Your task to perform on an android device: turn off data saver in the chrome app Image 0: 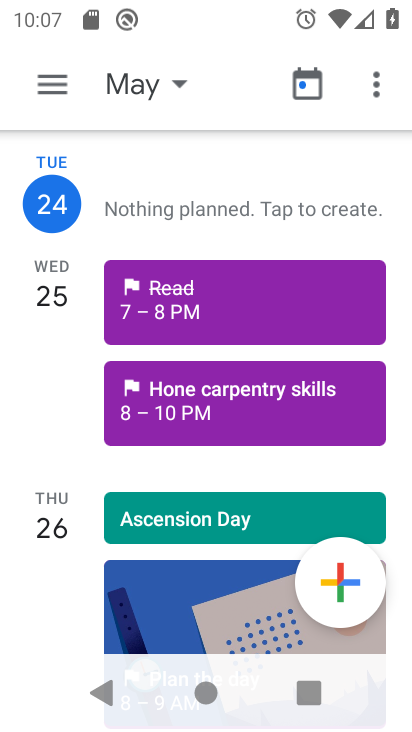
Step 0: press back button
Your task to perform on an android device: turn off data saver in the chrome app Image 1: 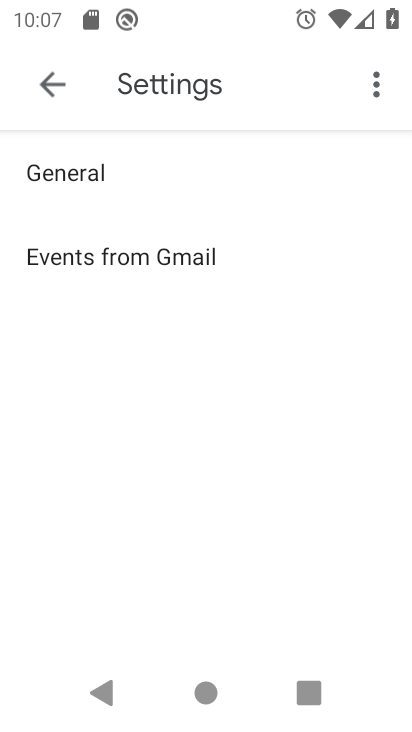
Step 1: click (49, 83)
Your task to perform on an android device: turn off data saver in the chrome app Image 2: 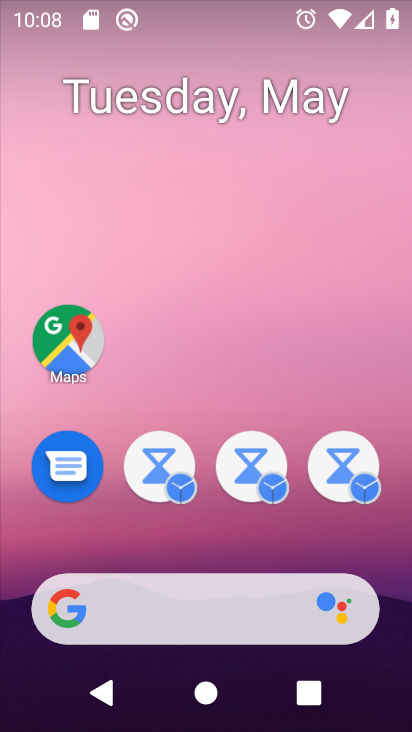
Step 2: drag from (269, 704) to (238, 284)
Your task to perform on an android device: turn off data saver in the chrome app Image 3: 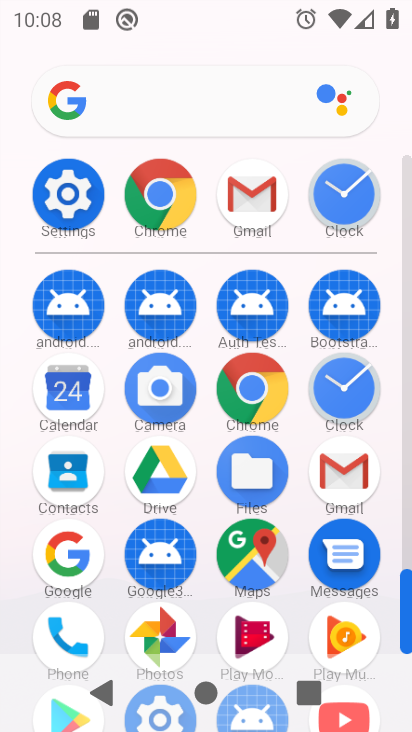
Step 3: click (159, 191)
Your task to perform on an android device: turn off data saver in the chrome app Image 4: 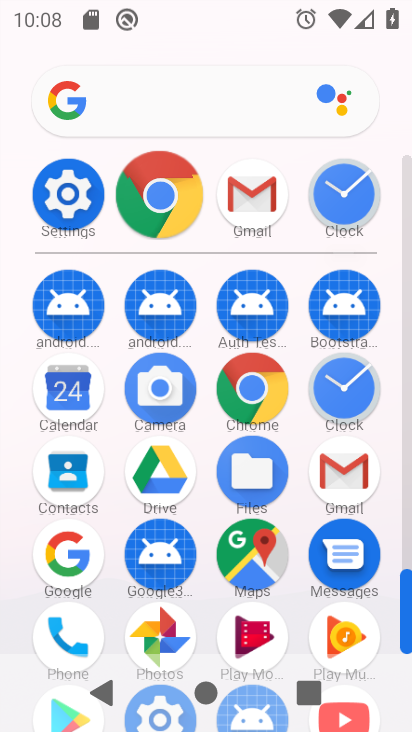
Step 4: click (162, 192)
Your task to perform on an android device: turn off data saver in the chrome app Image 5: 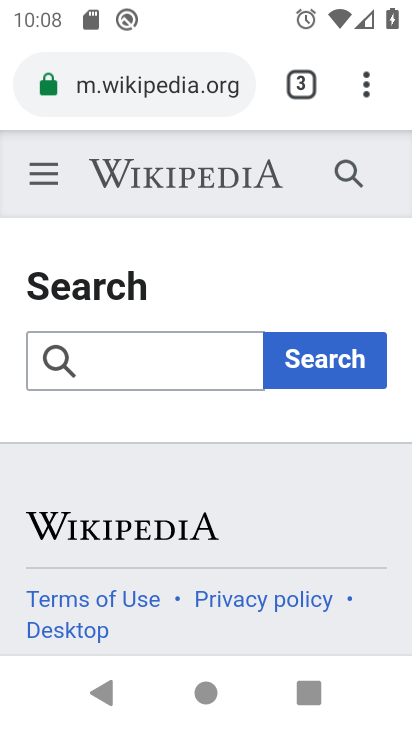
Step 5: drag from (362, 82) to (88, 512)
Your task to perform on an android device: turn off data saver in the chrome app Image 6: 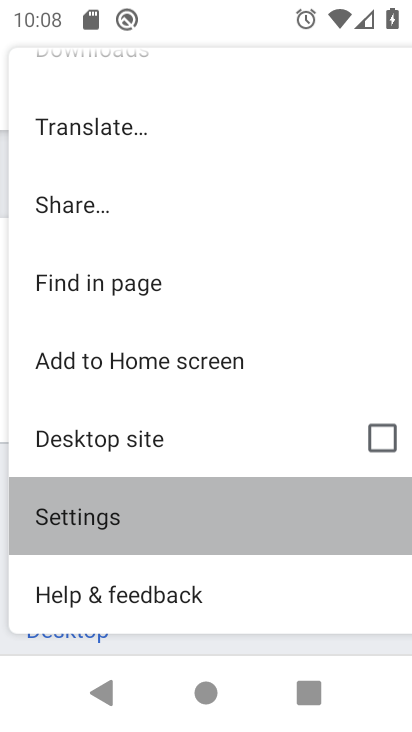
Step 6: click (90, 513)
Your task to perform on an android device: turn off data saver in the chrome app Image 7: 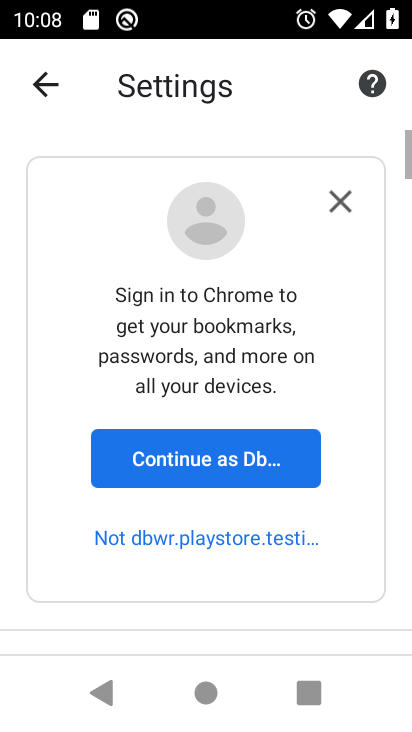
Step 7: drag from (207, 471) to (194, 70)
Your task to perform on an android device: turn off data saver in the chrome app Image 8: 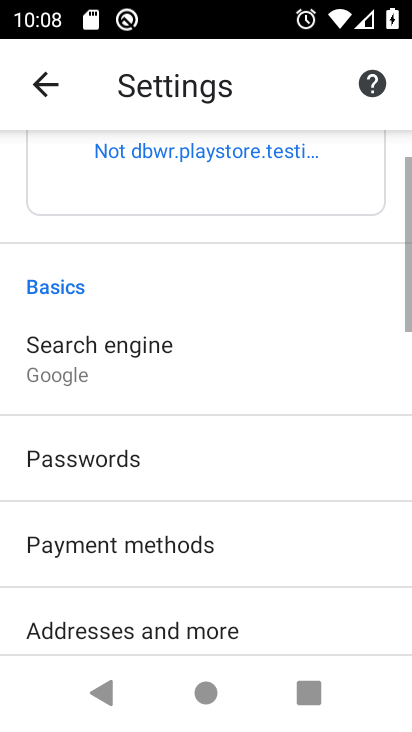
Step 8: drag from (231, 442) to (249, 81)
Your task to perform on an android device: turn off data saver in the chrome app Image 9: 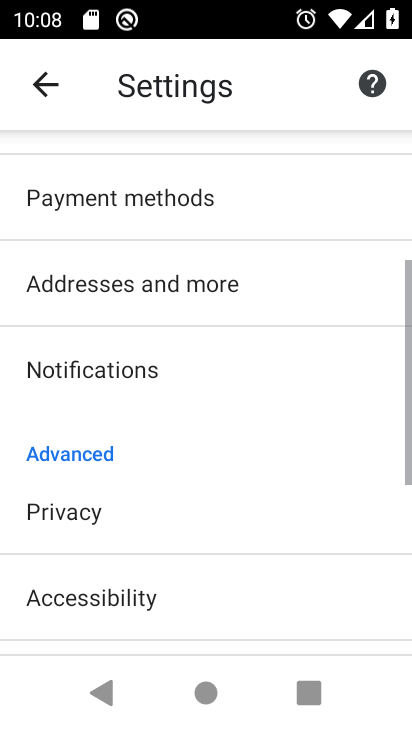
Step 9: drag from (230, 568) to (224, 190)
Your task to perform on an android device: turn off data saver in the chrome app Image 10: 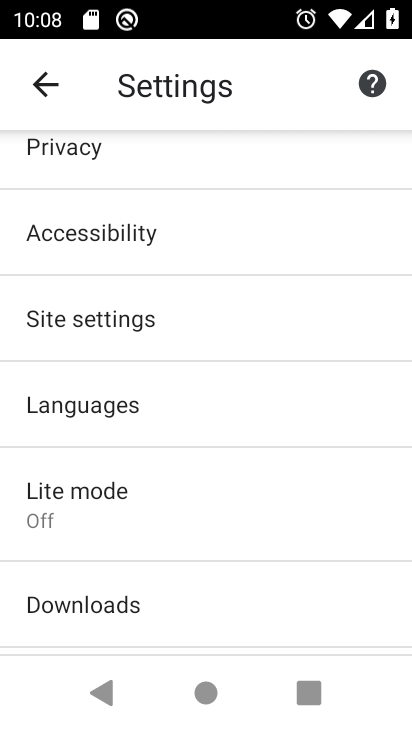
Step 10: click (66, 484)
Your task to perform on an android device: turn off data saver in the chrome app Image 11: 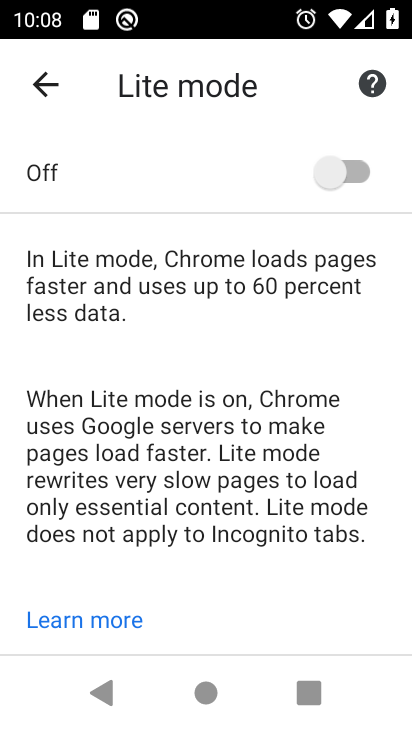
Step 11: drag from (208, 415) to (242, 30)
Your task to perform on an android device: turn off data saver in the chrome app Image 12: 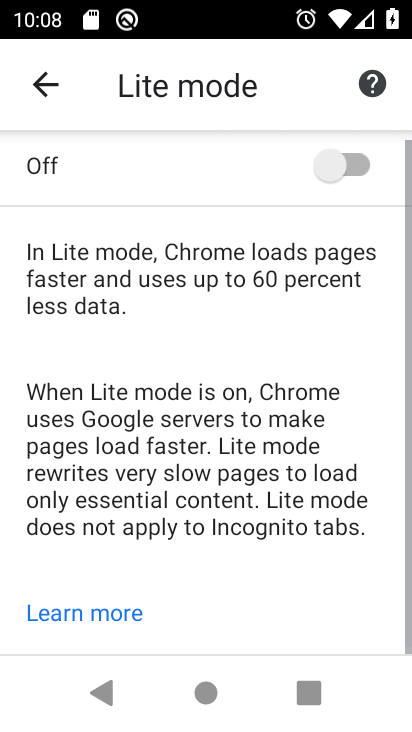
Step 12: drag from (262, 345) to (267, 96)
Your task to perform on an android device: turn off data saver in the chrome app Image 13: 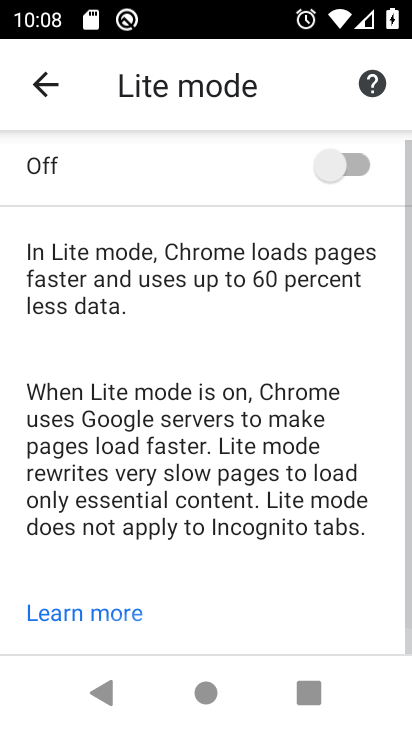
Step 13: drag from (234, 422) to (231, 111)
Your task to perform on an android device: turn off data saver in the chrome app Image 14: 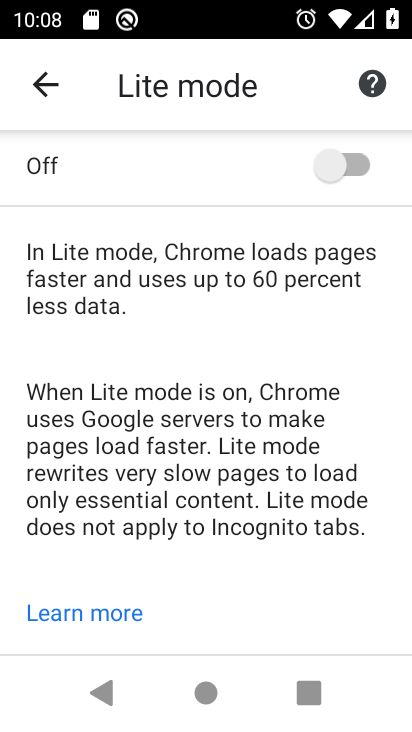
Step 14: drag from (210, 395) to (184, 129)
Your task to perform on an android device: turn off data saver in the chrome app Image 15: 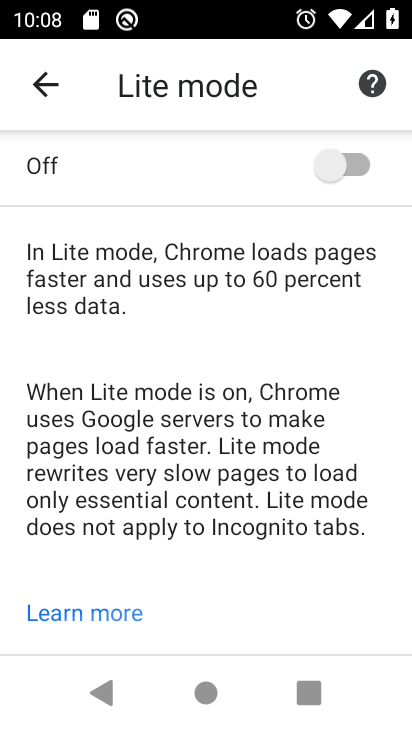
Step 15: drag from (222, 377) to (248, 106)
Your task to perform on an android device: turn off data saver in the chrome app Image 16: 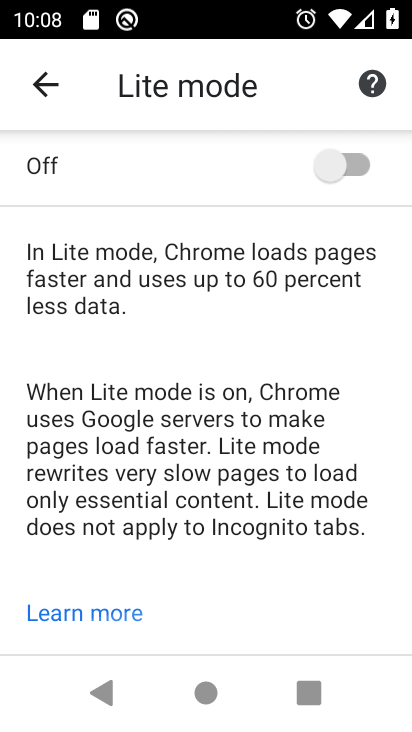
Step 16: drag from (234, 390) to (272, 84)
Your task to perform on an android device: turn off data saver in the chrome app Image 17: 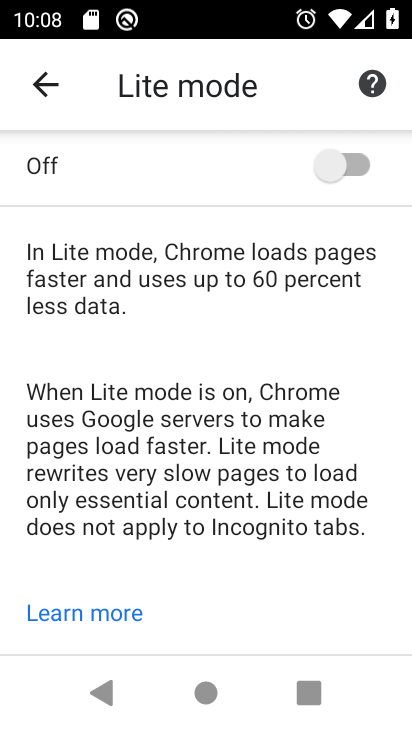
Step 17: drag from (242, 328) to (268, 67)
Your task to perform on an android device: turn off data saver in the chrome app Image 18: 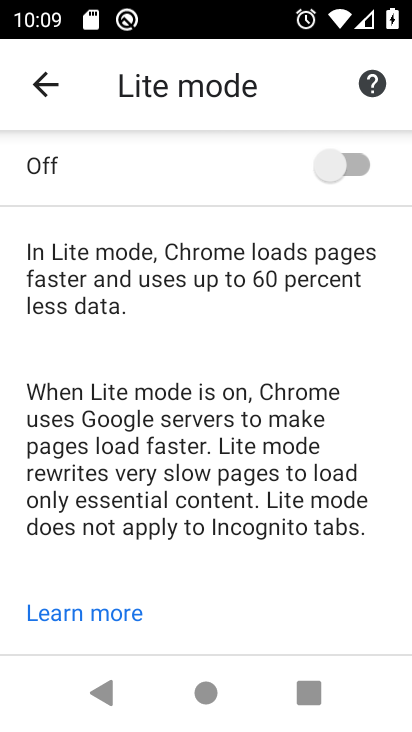
Step 18: click (42, 79)
Your task to perform on an android device: turn off data saver in the chrome app Image 19: 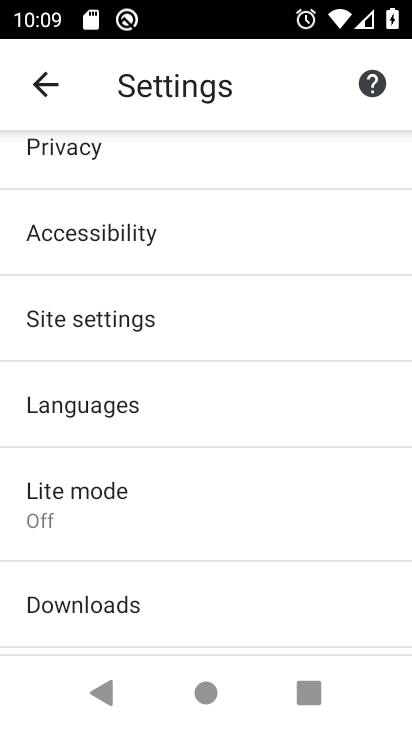
Step 19: press back button
Your task to perform on an android device: turn off data saver in the chrome app Image 20: 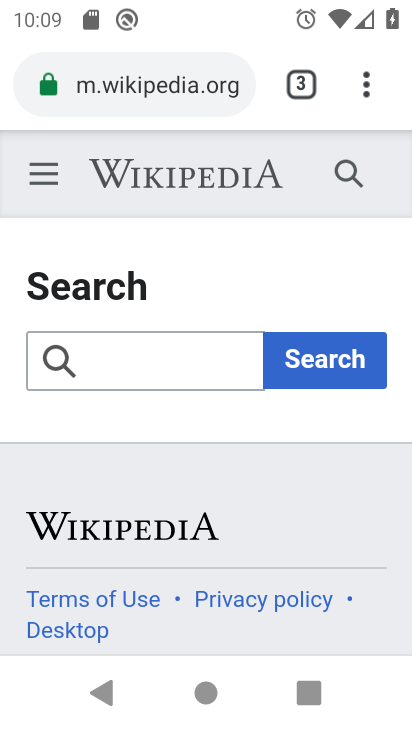
Step 20: press home button
Your task to perform on an android device: turn off data saver in the chrome app Image 21: 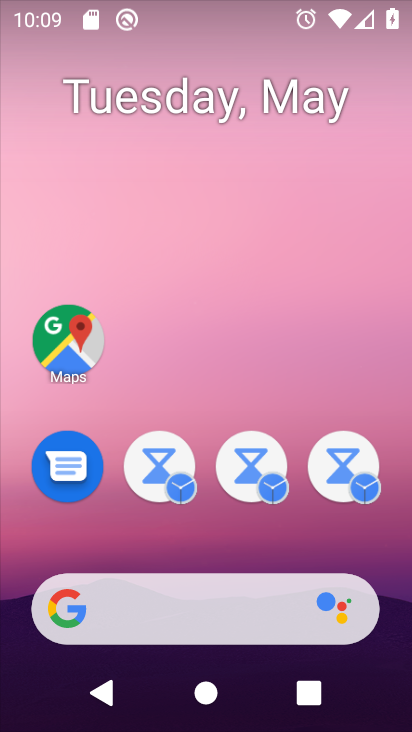
Step 21: drag from (351, 609) to (271, 140)
Your task to perform on an android device: turn off data saver in the chrome app Image 22: 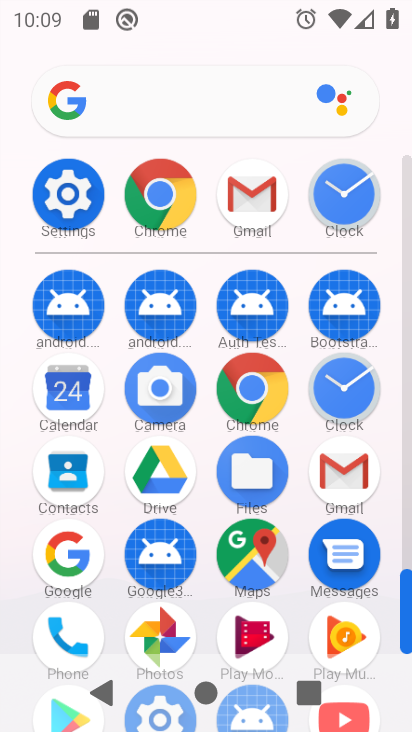
Step 22: click (162, 192)
Your task to perform on an android device: turn off data saver in the chrome app Image 23: 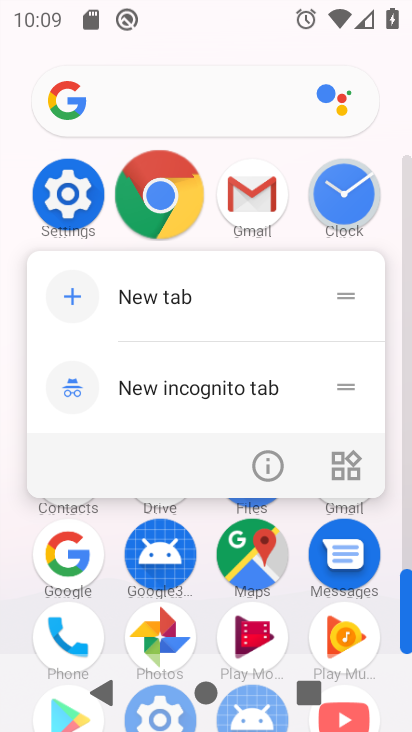
Step 23: click (164, 193)
Your task to perform on an android device: turn off data saver in the chrome app Image 24: 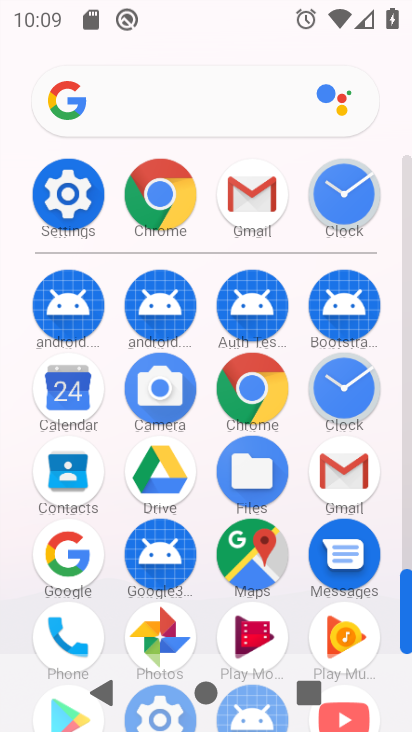
Step 24: click (169, 195)
Your task to perform on an android device: turn off data saver in the chrome app Image 25: 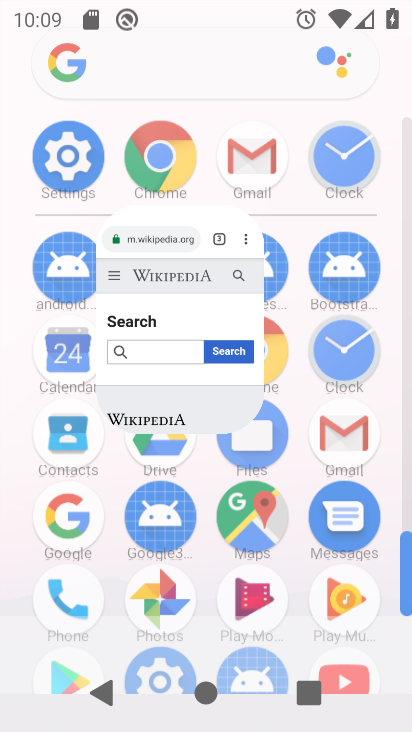
Step 25: click (171, 195)
Your task to perform on an android device: turn off data saver in the chrome app Image 26: 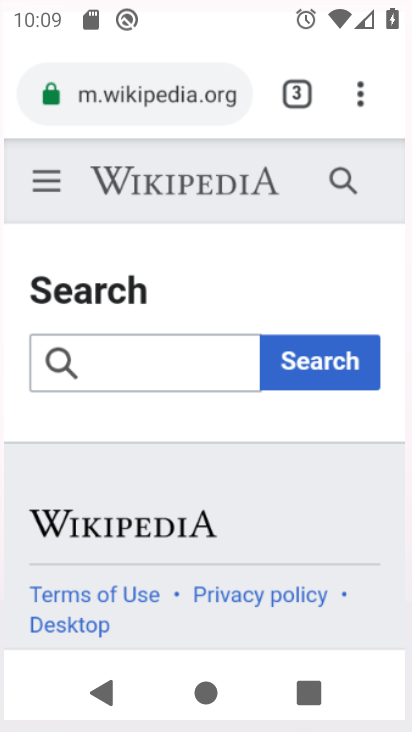
Step 26: click (173, 195)
Your task to perform on an android device: turn off data saver in the chrome app Image 27: 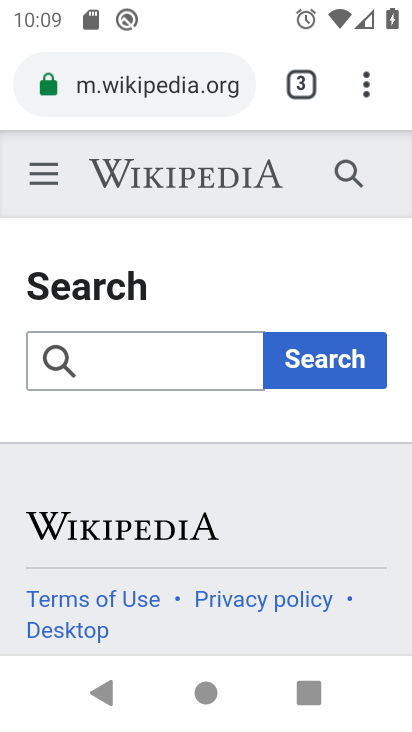
Step 27: drag from (365, 87) to (97, 517)
Your task to perform on an android device: turn off data saver in the chrome app Image 28: 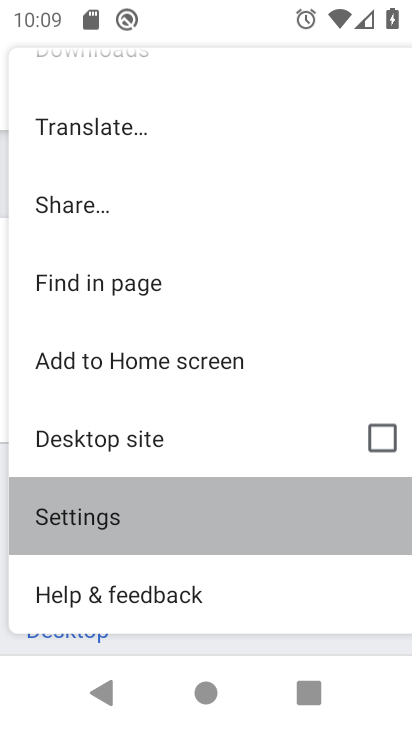
Step 28: click (103, 521)
Your task to perform on an android device: turn off data saver in the chrome app Image 29: 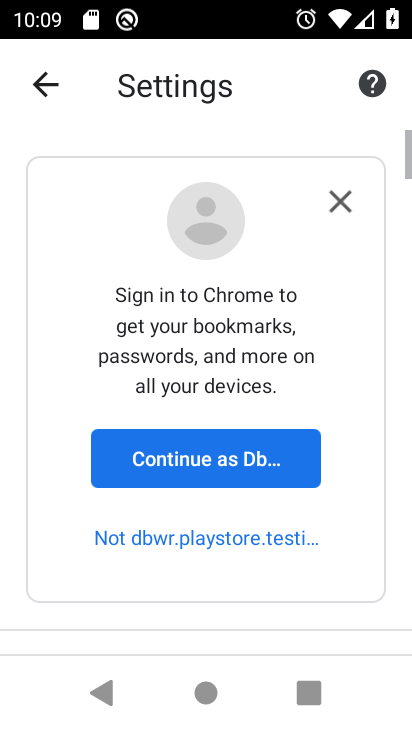
Step 29: drag from (203, 488) to (152, 77)
Your task to perform on an android device: turn off data saver in the chrome app Image 30: 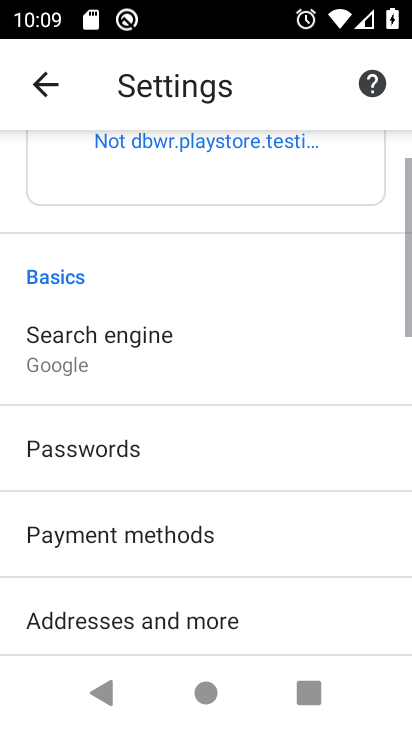
Step 30: drag from (177, 463) to (177, 16)
Your task to perform on an android device: turn off data saver in the chrome app Image 31: 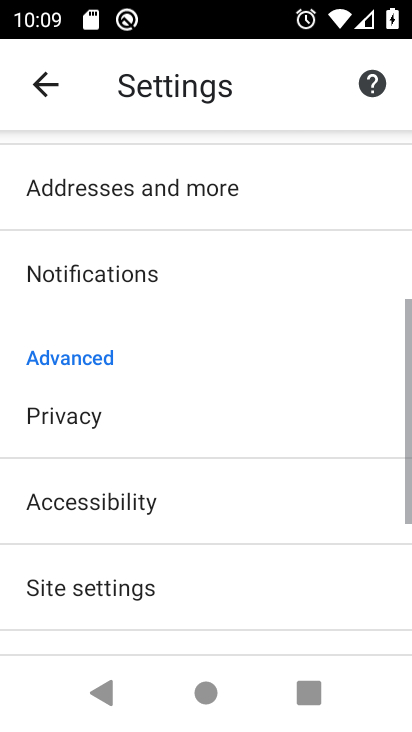
Step 31: drag from (209, 370) to (236, 98)
Your task to perform on an android device: turn off data saver in the chrome app Image 32: 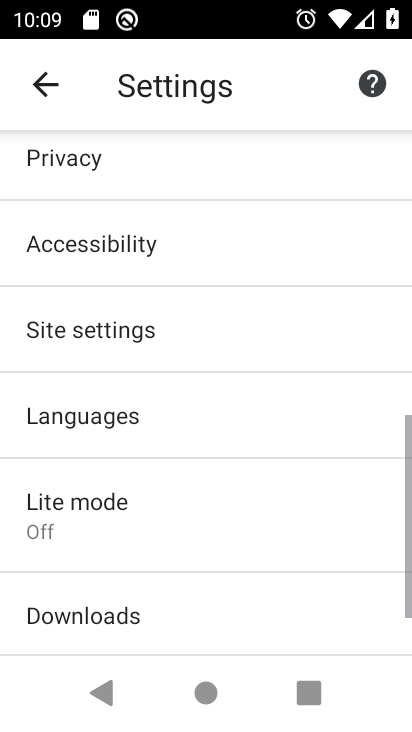
Step 32: drag from (232, 403) to (251, 80)
Your task to perform on an android device: turn off data saver in the chrome app Image 33: 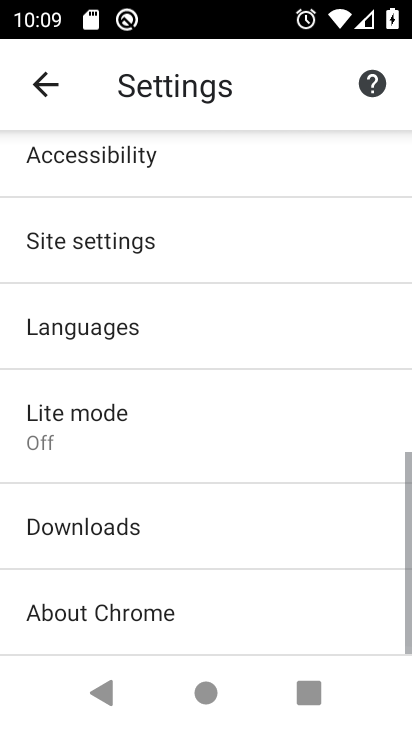
Step 33: drag from (186, 525) to (198, 253)
Your task to perform on an android device: turn off data saver in the chrome app Image 34: 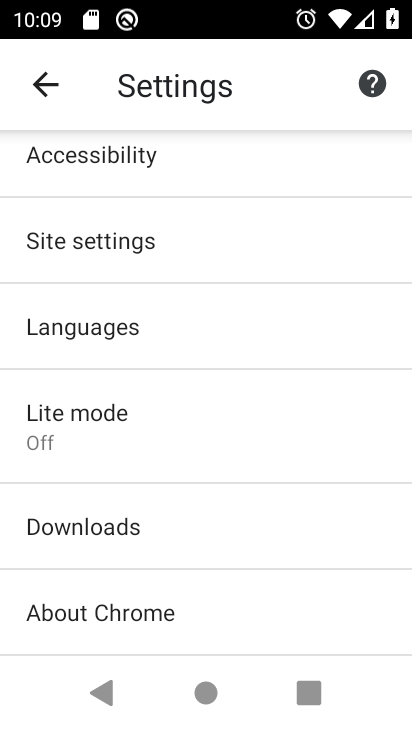
Step 34: click (63, 419)
Your task to perform on an android device: turn off data saver in the chrome app Image 35: 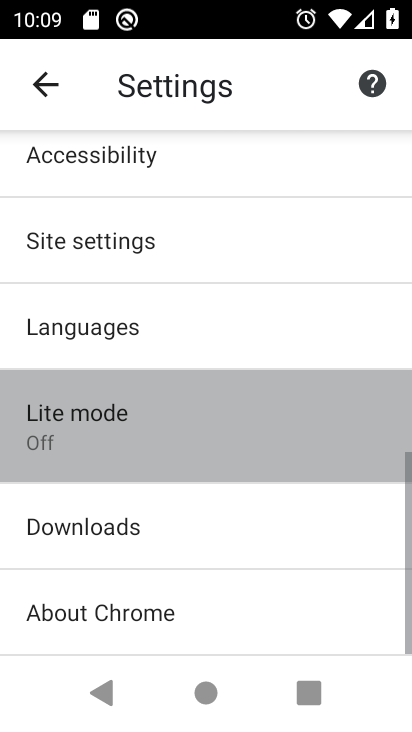
Step 35: click (64, 416)
Your task to perform on an android device: turn off data saver in the chrome app Image 36: 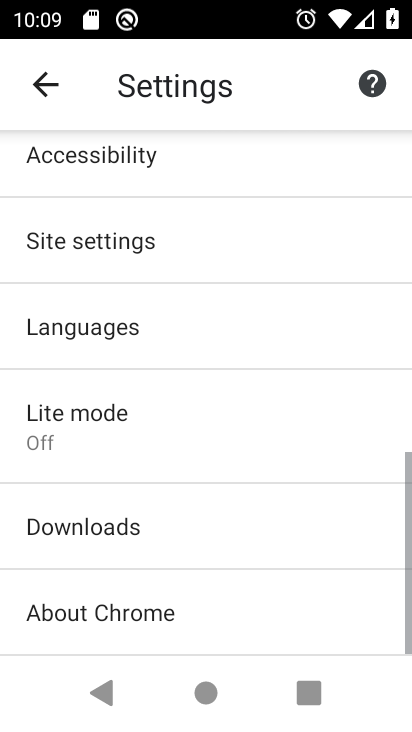
Step 36: click (66, 415)
Your task to perform on an android device: turn off data saver in the chrome app Image 37: 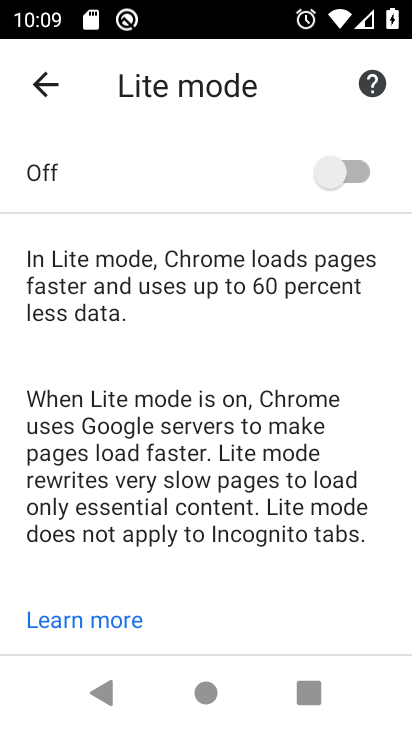
Step 37: task complete